Your task to perform on an android device: see tabs open on other devices in the chrome app Image 0: 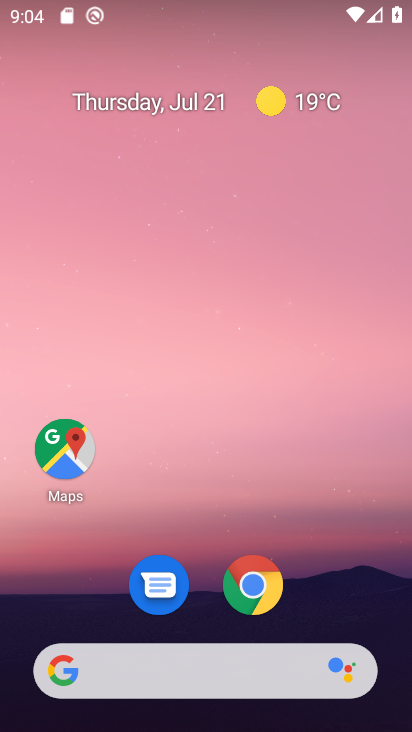
Step 0: click (249, 583)
Your task to perform on an android device: see tabs open on other devices in the chrome app Image 1: 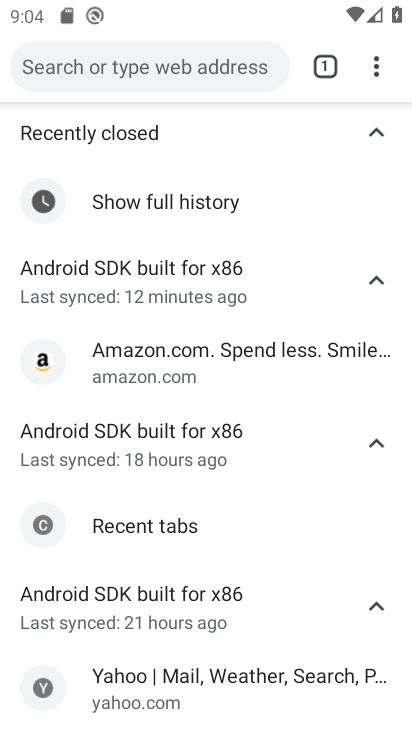
Step 1: click (373, 68)
Your task to perform on an android device: see tabs open on other devices in the chrome app Image 2: 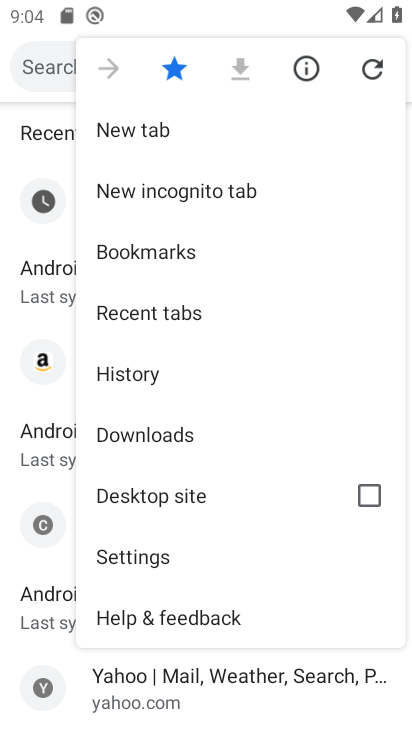
Step 2: click (183, 315)
Your task to perform on an android device: see tabs open on other devices in the chrome app Image 3: 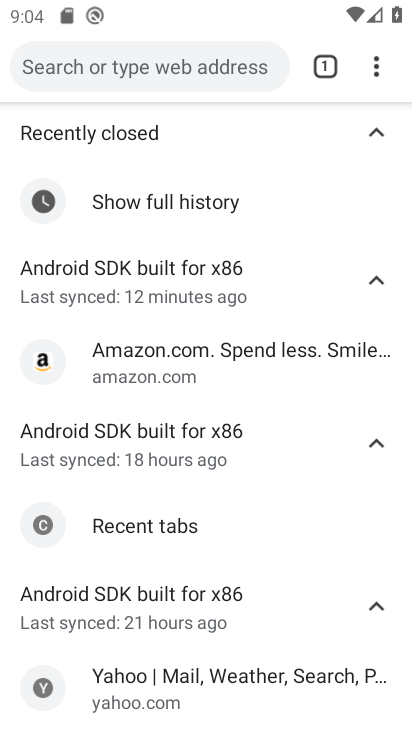
Step 3: task complete